Your task to perform on an android device: set default search engine in the chrome app Image 0: 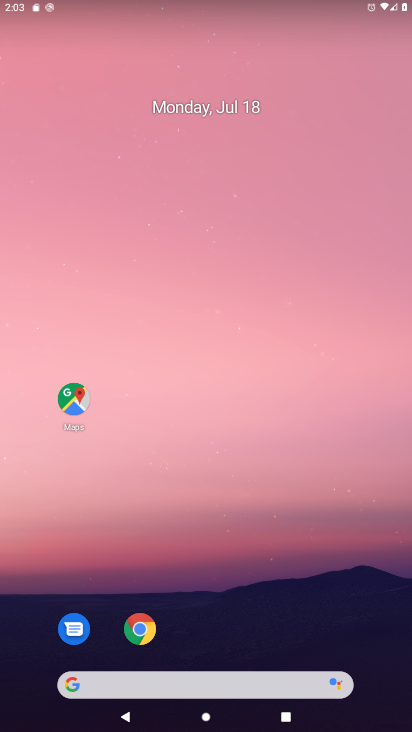
Step 0: click (145, 633)
Your task to perform on an android device: set default search engine in the chrome app Image 1: 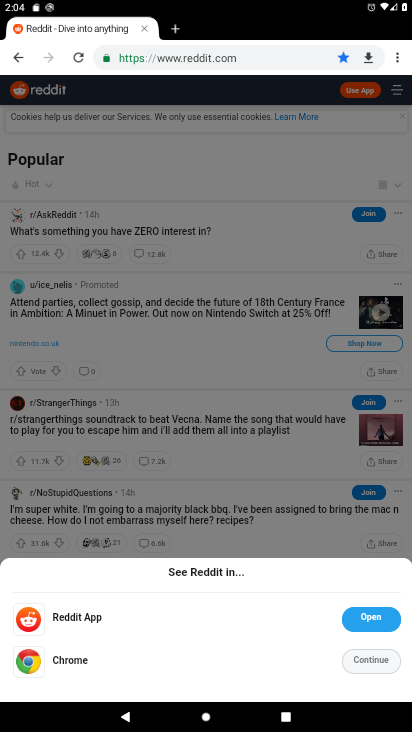
Step 1: click (400, 60)
Your task to perform on an android device: set default search engine in the chrome app Image 2: 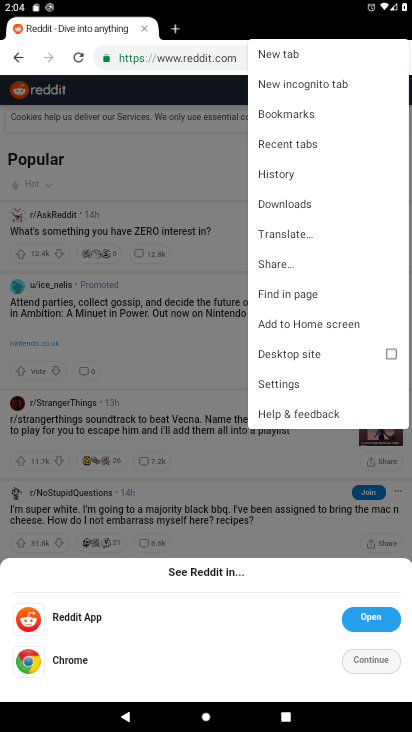
Step 2: click (292, 382)
Your task to perform on an android device: set default search engine in the chrome app Image 3: 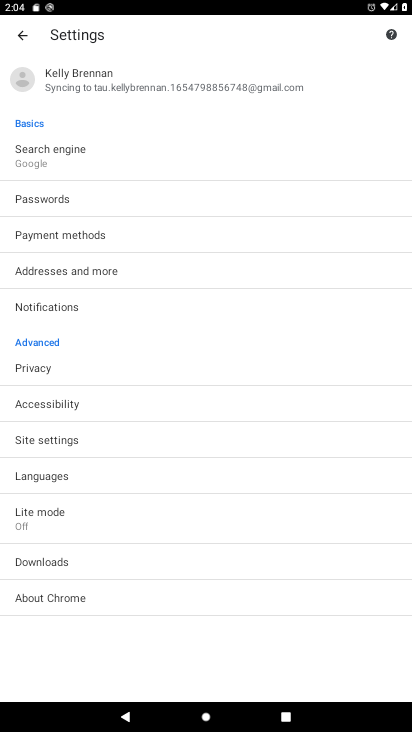
Step 3: click (27, 158)
Your task to perform on an android device: set default search engine in the chrome app Image 4: 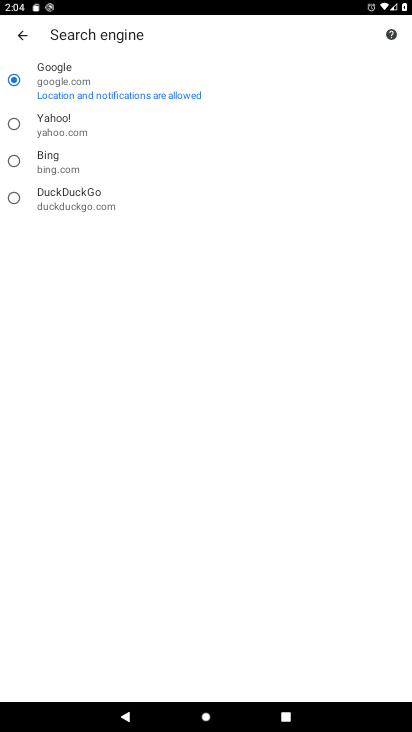
Step 4: click (12, 120)
Your task to perform on an android device: set default search engine in the chrome app Image 5: 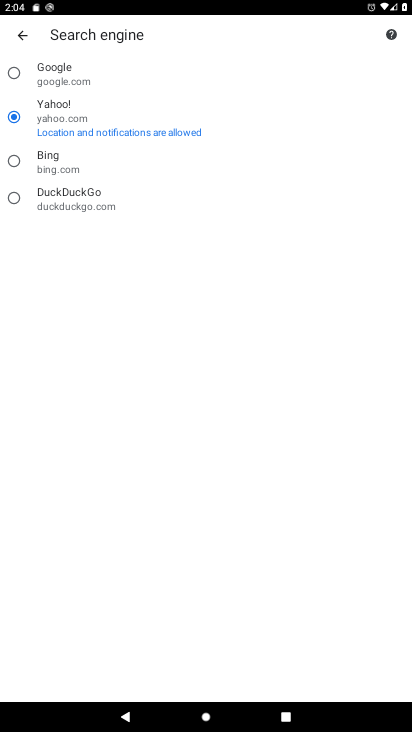
Step 5: task complete